Your task to perform on an android device: open the mobile data screen to see how much data has been used Image 0: 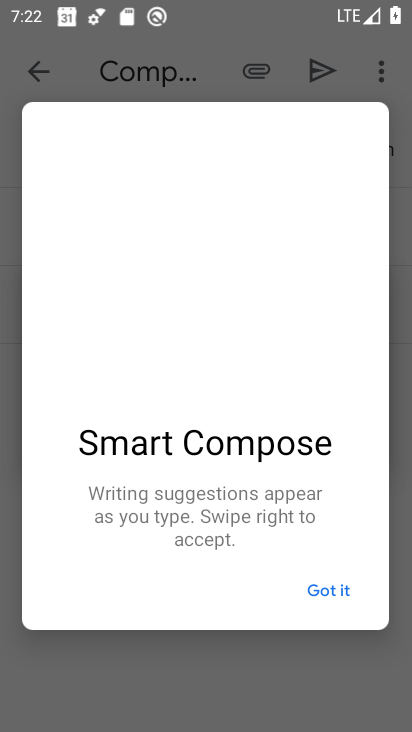
Step 0: press home button
Your task to perform on an android device: open the mobile data screen to see how much data has been used Image 1: 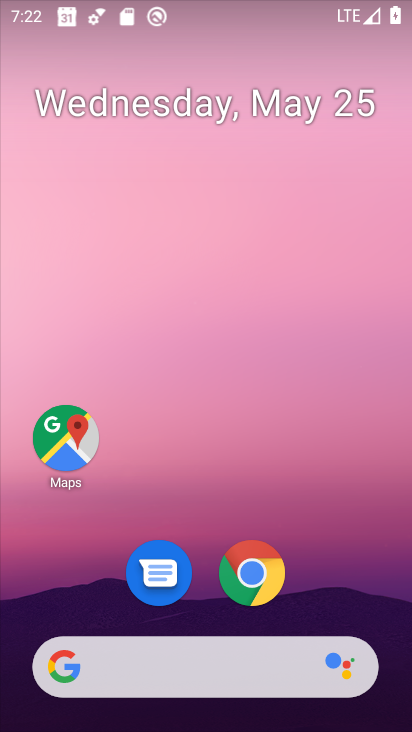
Step 1: drag from (398, 709) to (376, 73)
Your task to perform on an android device: open the mobile data screen to see how much data has been used Image 2: 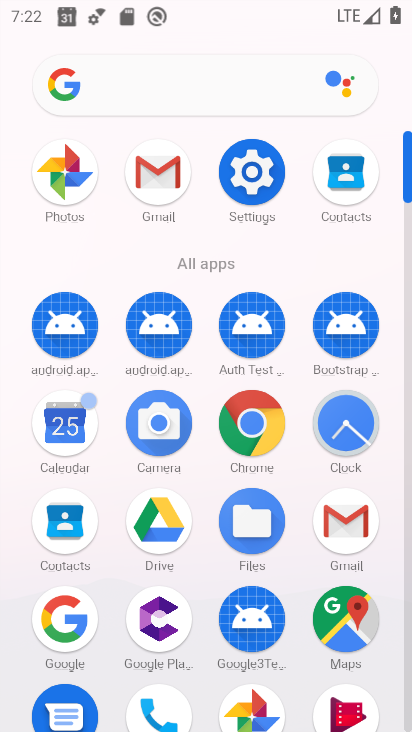
Step 2: click (272, 182)
Your task to perform on an android device: open the mobile data screen to see how much data has been used Image 3: 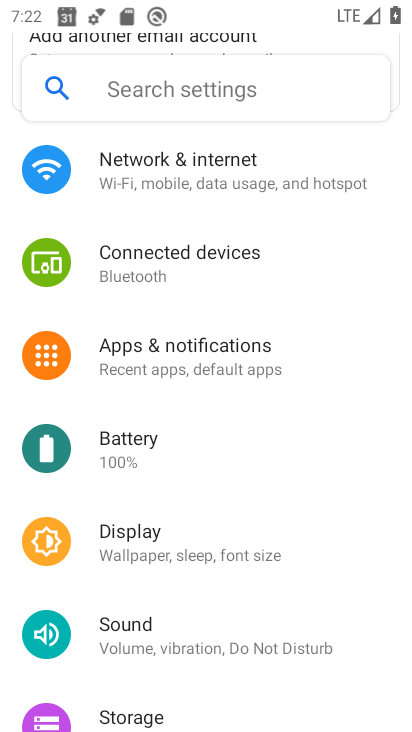
Step 3: click (183, 164)
Your task to perform on an android device: open the mobile data screen to see how much data has been used Image 4: 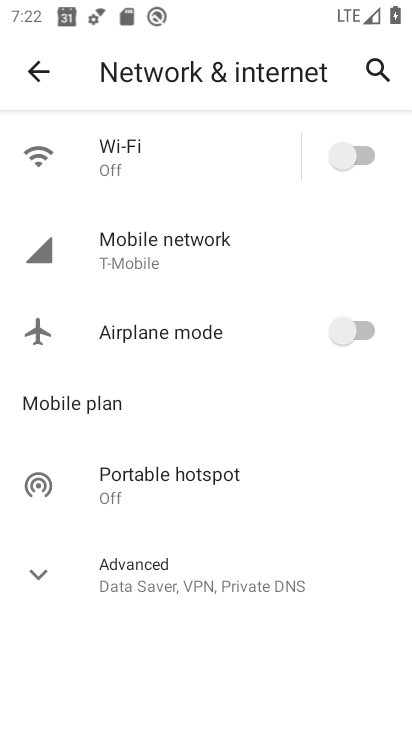
Step 4: click (120, 249)
Your task to perform on an android device: open the mobile data screen to see how much data has been used Image 5: 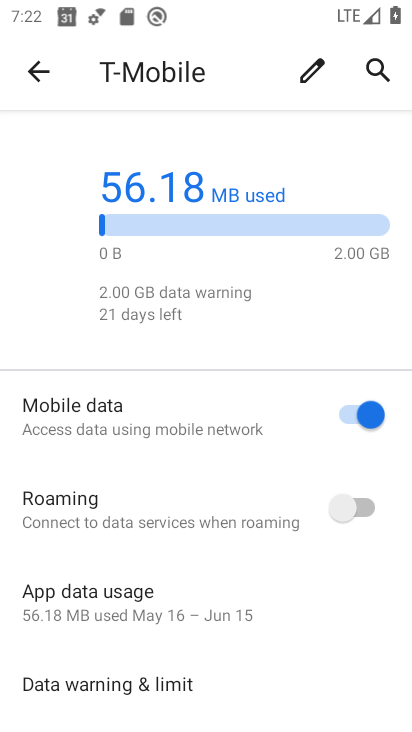
Step 5: task complete